Your task to perform on an android device: turn off translation in the chrome app Image 0: 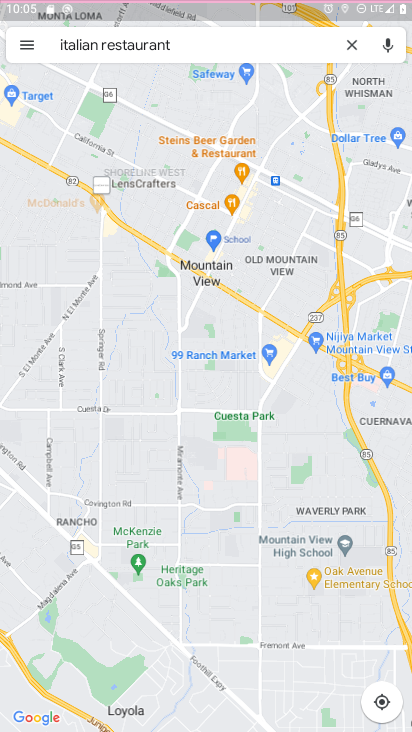
Step 0: click (122, 125)
Your task to perform on an android device: turn off translation in the chrome app Image 1: 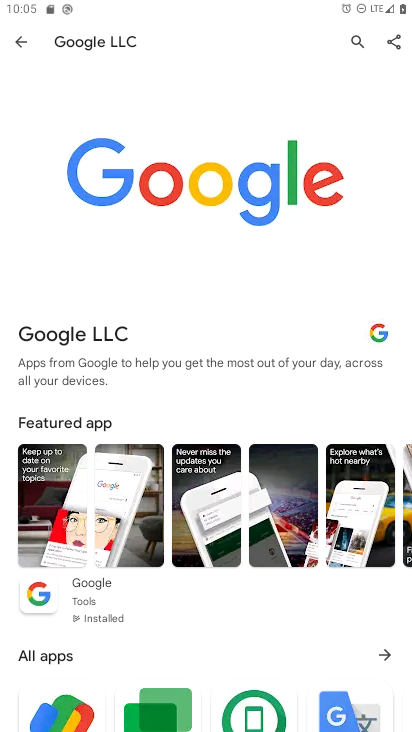
Step 1: press home button
Your task to perform on an android device: turn off translation in the chrome app Image 2: 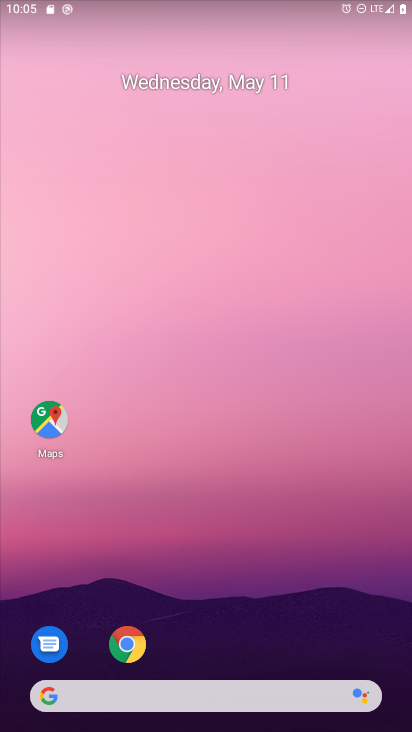
Step 2: click (124, 650)
Your task to perform on an android device: turn off translation in the chrome app Image 3: 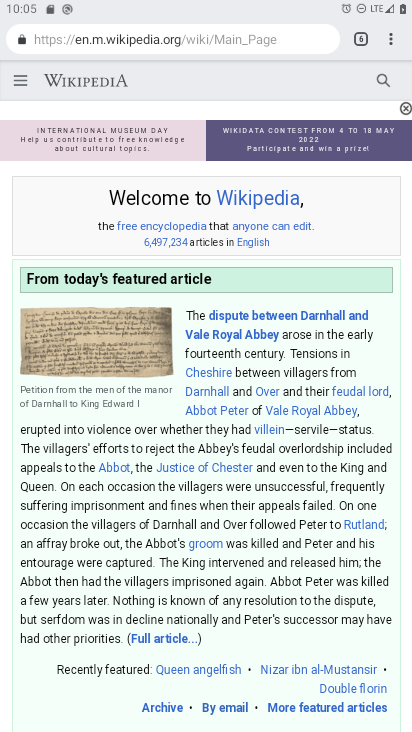
Step 3: click (387, 36)
Your task to perform on an android device: turn off translation in the chrome app Image 4: 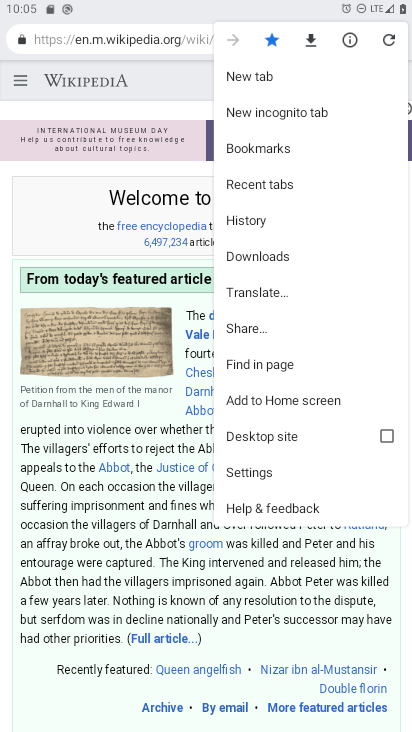
Step 4: click (255, 467)
Your task to perform on an android device: turn off translation in the chrome app Image 5: 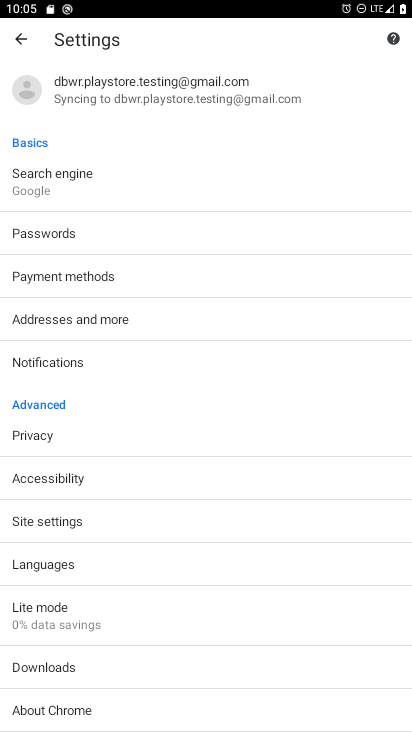
Step 5: click (53, 564)
Your task to perform on an android device: turn off translation in the chrome app Image 6: 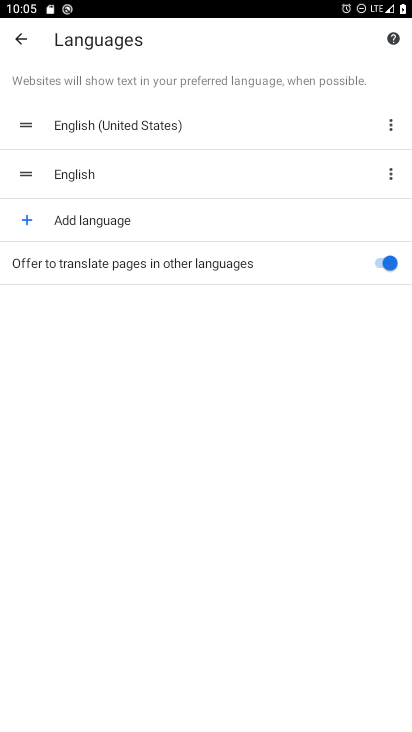
Step 6: click (386, 258)
Your task to perform on an android device: turn off translation in the chrome app Image 7: 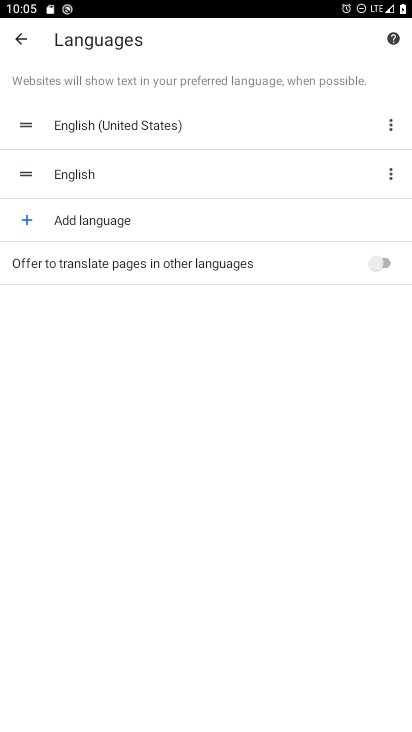
Step 7: task complete